Your task to perform on an android device: Empty the shopping cart on ebay. Search for logitech g pro on ebay, select the first entry, and add it to the cart. Image 0: 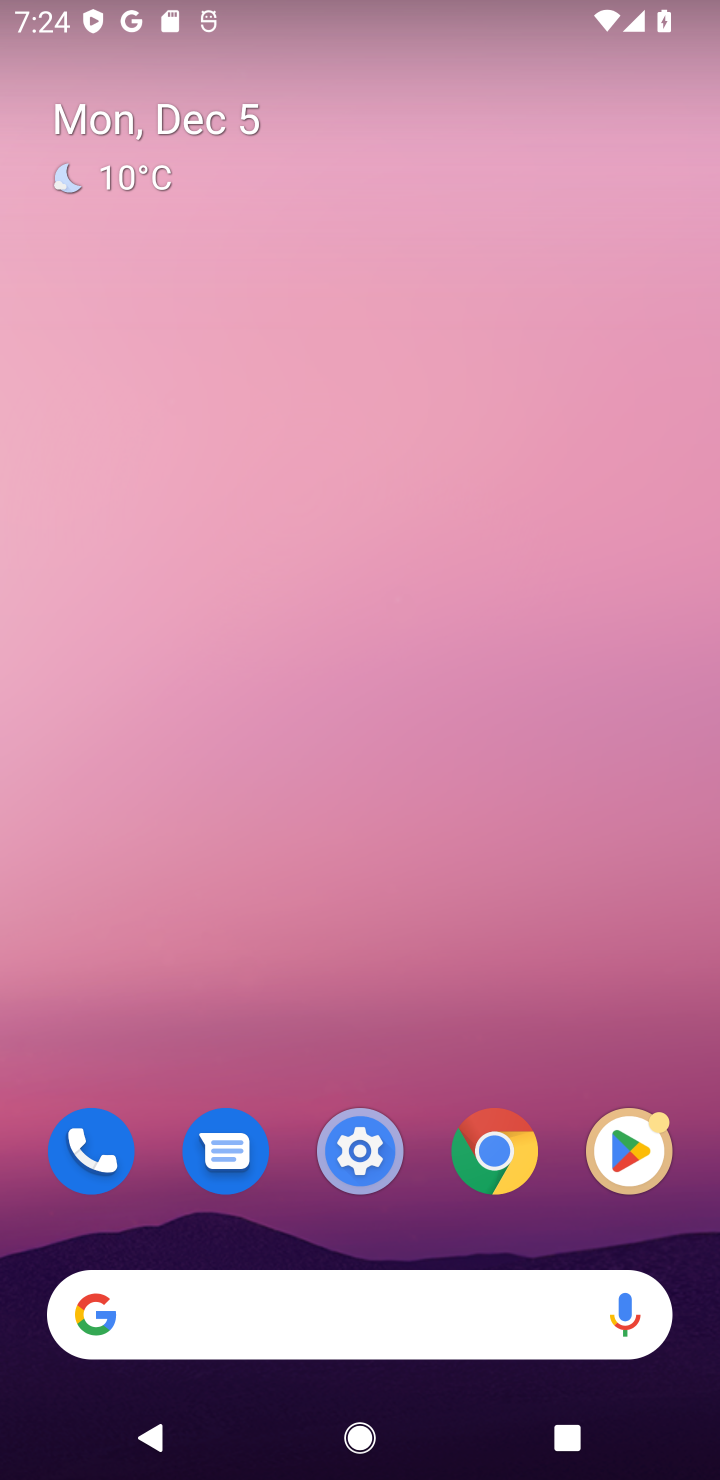
Step 0: click (416, 1328)
Your task to perform on an android device: Empty the shopping cart on ebay. Search for logitech g pro on ebay, select the first entry, and add it to the cart. Image 1: 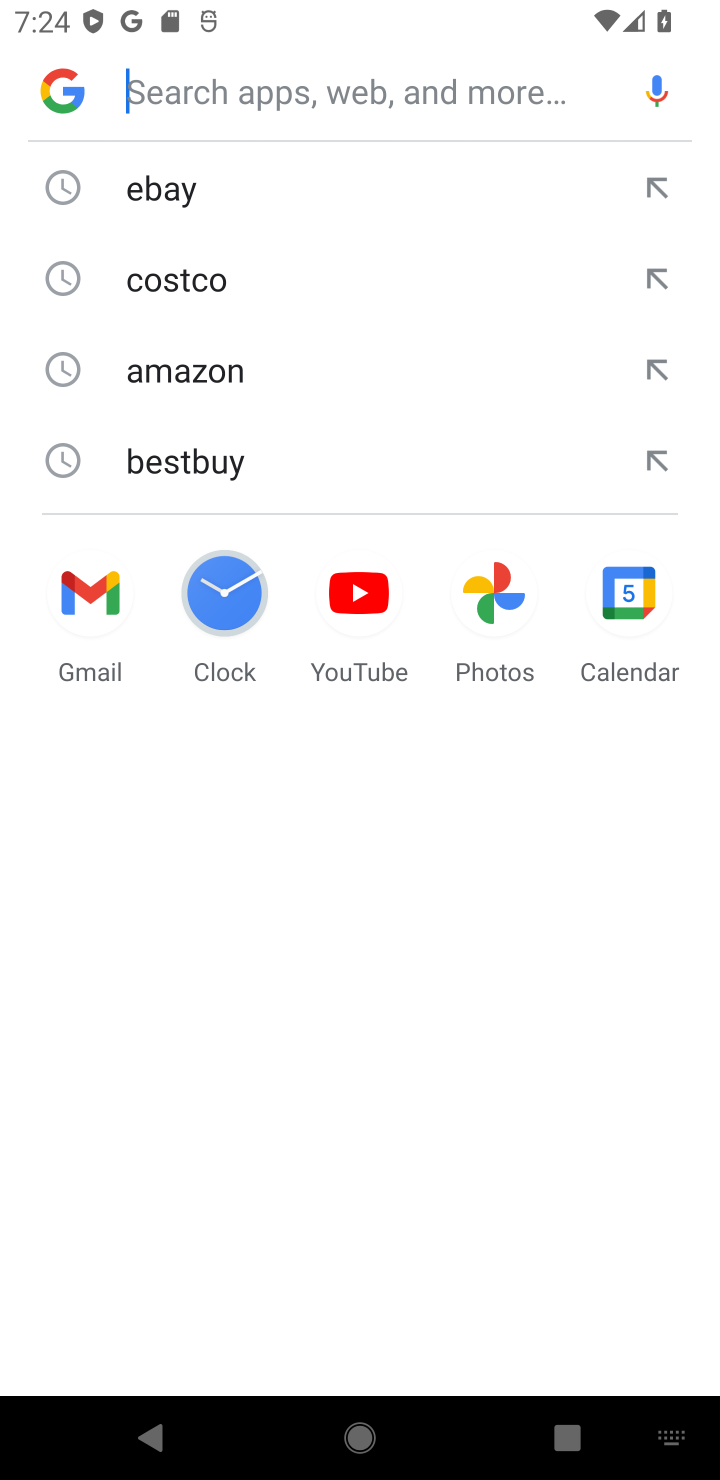
Step 1: click (140, 168)
Your task to perform on an android device: Empty the shopping cart on ebay. Search for logitech g pro on ebay, select the first entry, and add it to the cart. Image 2: 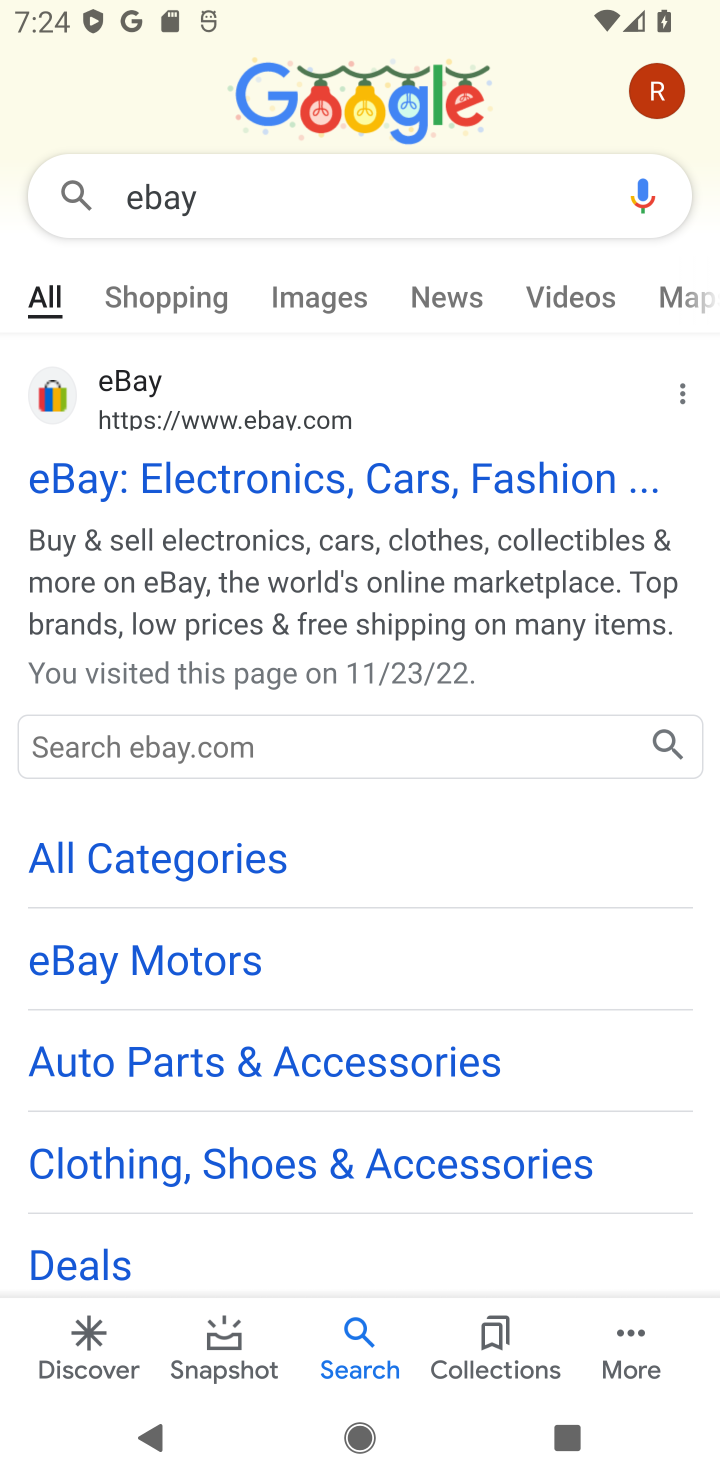
Step 2: click (289, 507)
Your task to perform on an android device: Empty the shopping cart on ebay. Search for logitech g pro on ebay, select the first entry, and add it to the cart. Image 3: 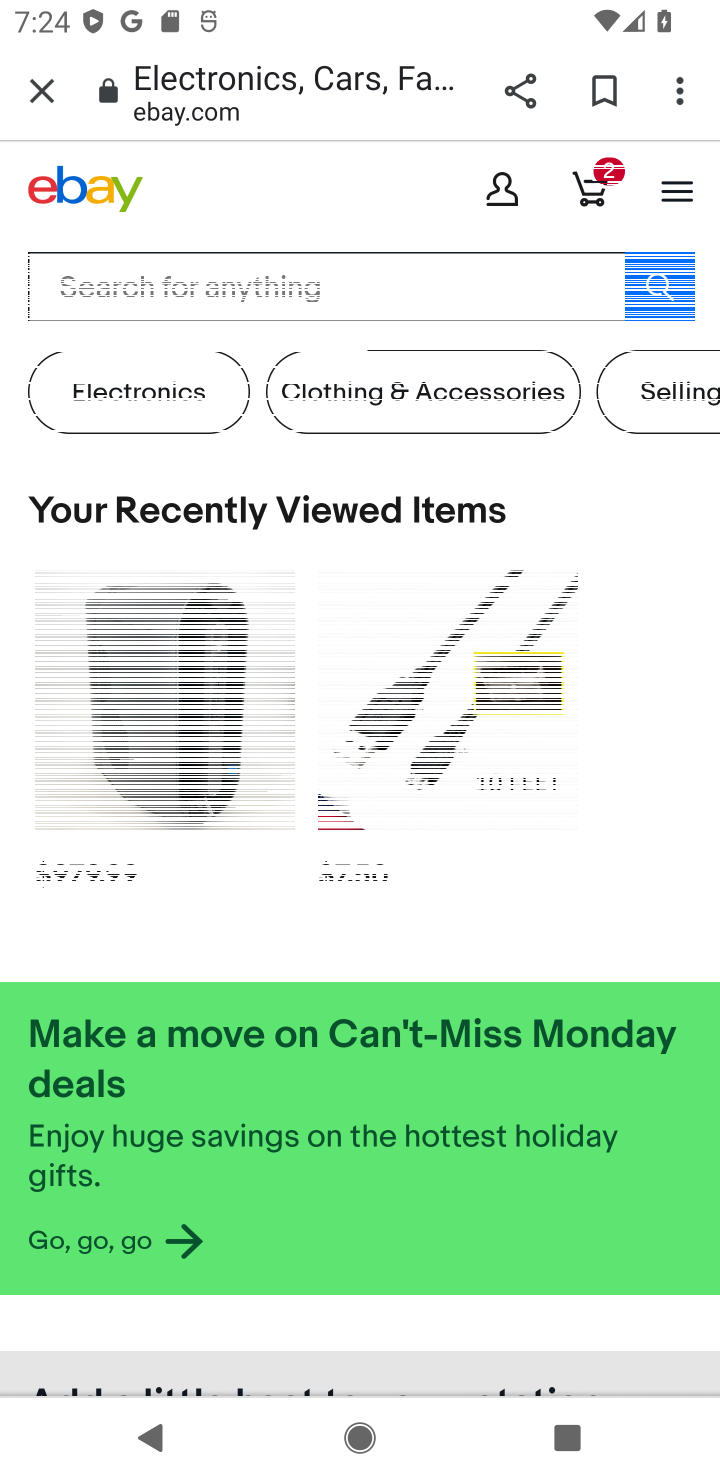
Step 3: click (322, 295)
Your task to perform on an android device: Empty the shopping cart on ebay. Search for logitech g pro on ebay, select the first entry, and add it to the cart. Image 4: 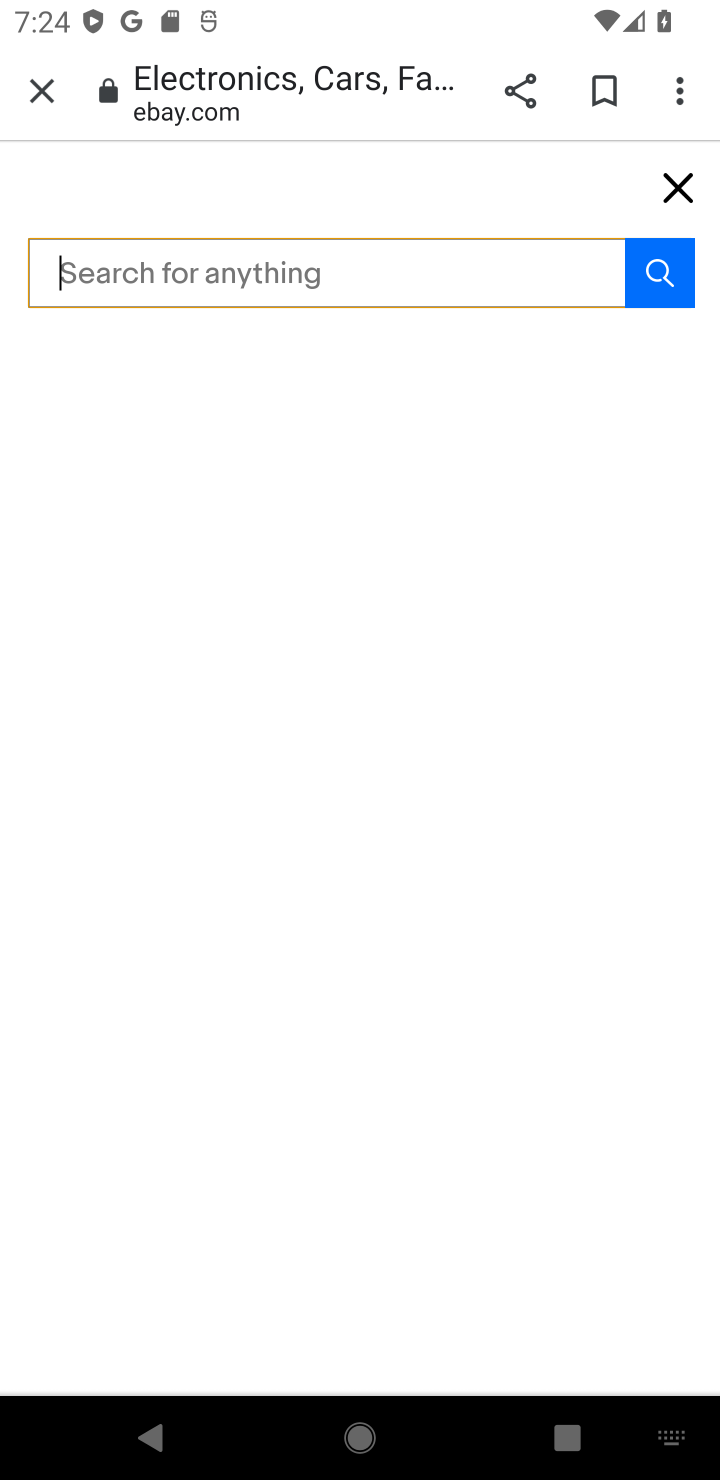
Step 4: type "logitech gpro "
Your task to perform on an android device: Empty the shopping cart on ebay. Search for logitech g pro on ebay, select the first entry, and add it to the cart. Image 5: 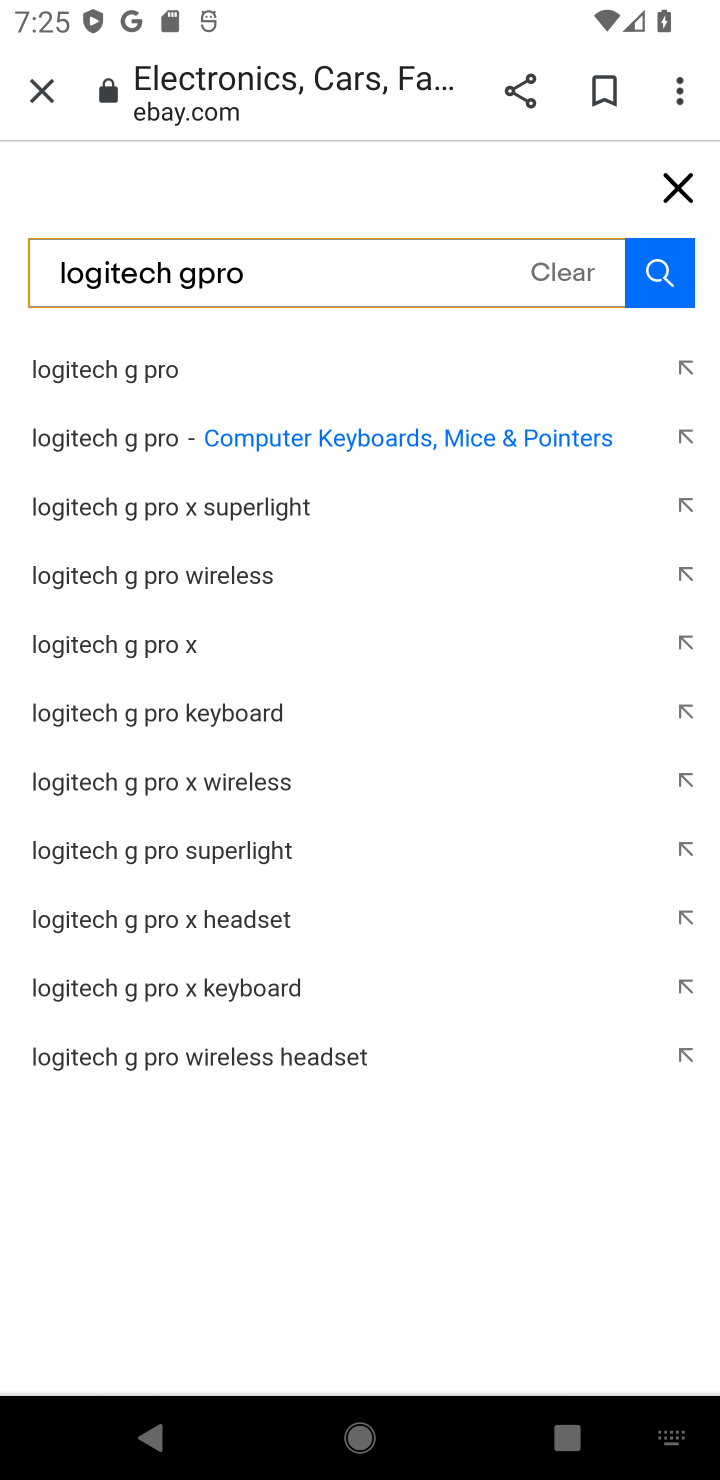
Step 5: click (150, 397)
Your task to perform on an android device: Empty the shopping cart on ebay. Search for logitech g pro on ebay, select the first entry, and add it to the cart. Image 6: 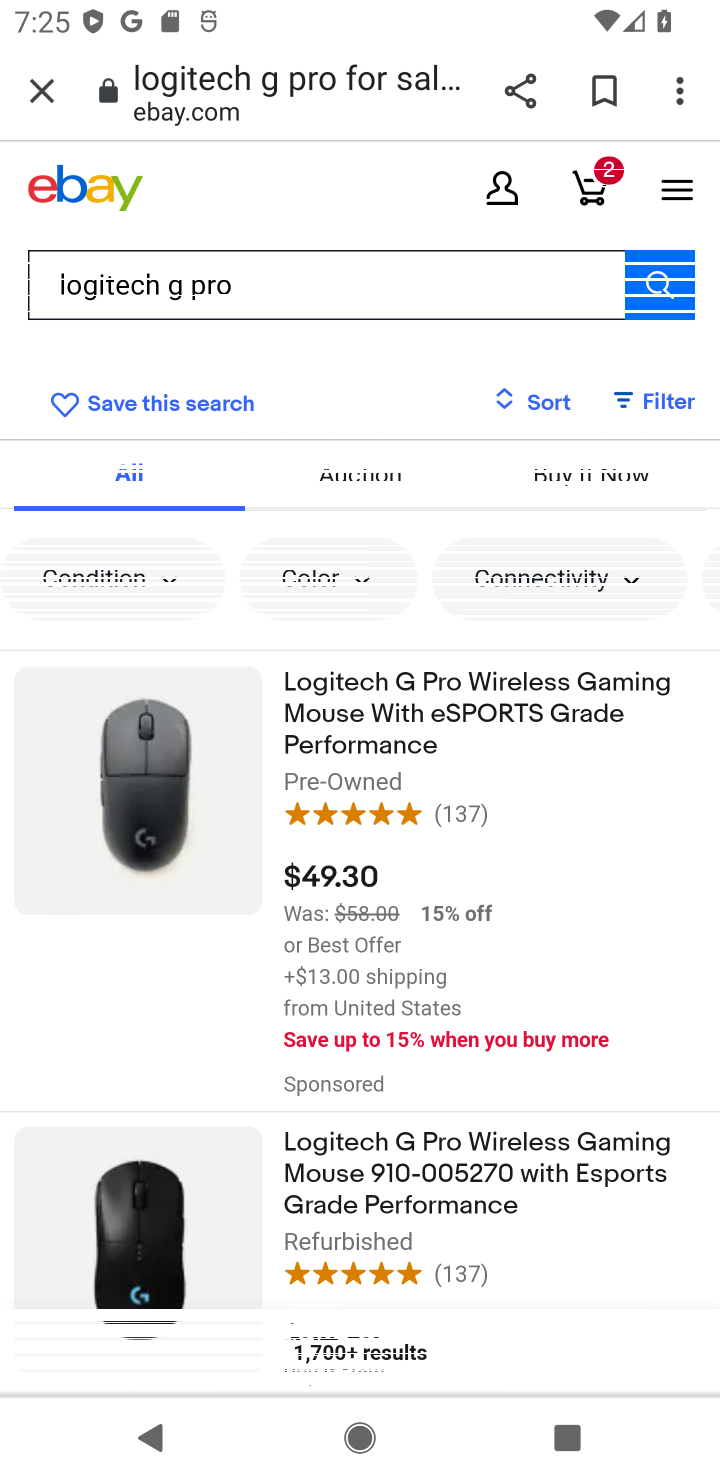
Step 6: click (410, 713)
Your task to perform on an android device: Empty the shopping cart on ebay. Search for logitech g pro on ebay, select the first entry, and add it to the cart. Image 7: 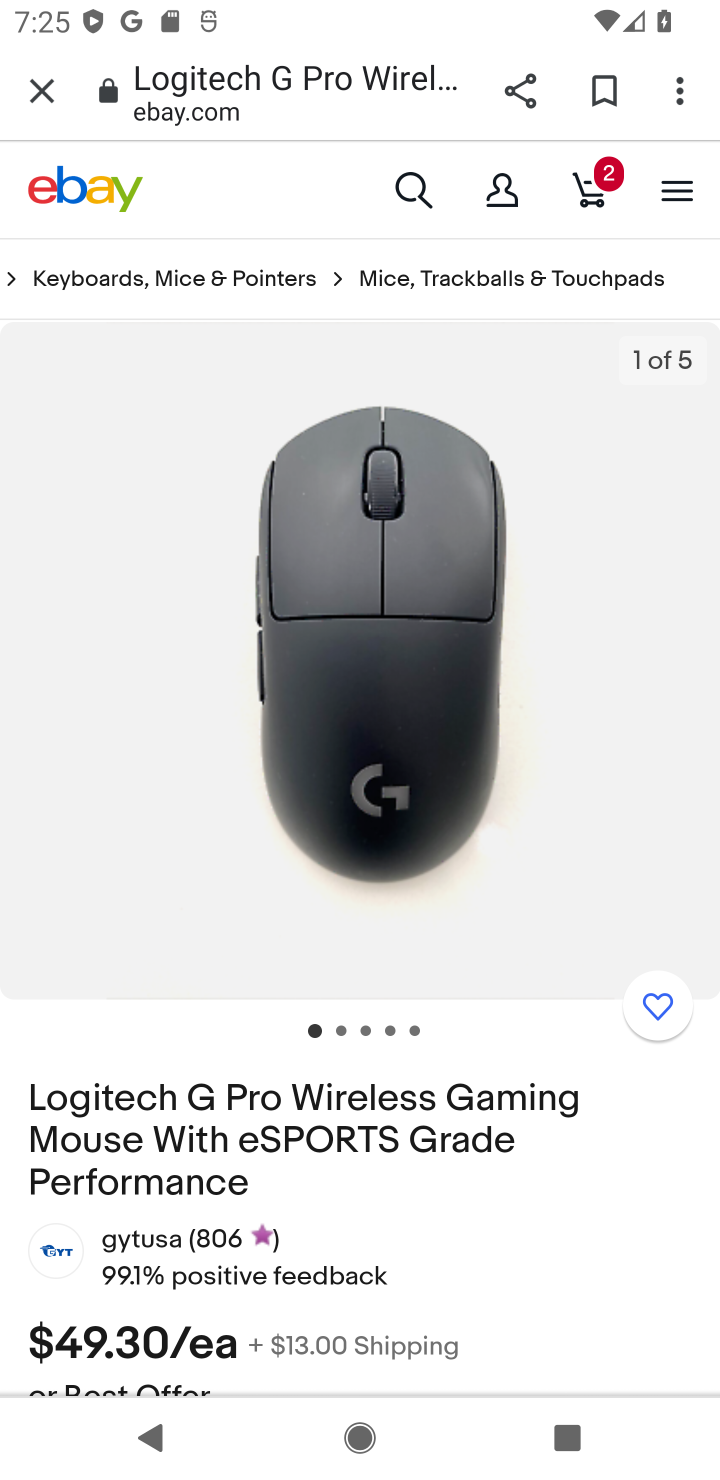
Step 7: drag from (448, 1221) to (400, 390)
Your task to perform on an android device: Empty the shopping cart on ebay. Search for logitech g pro on ebay, select the first entry, and add it to the cart. Image 8: 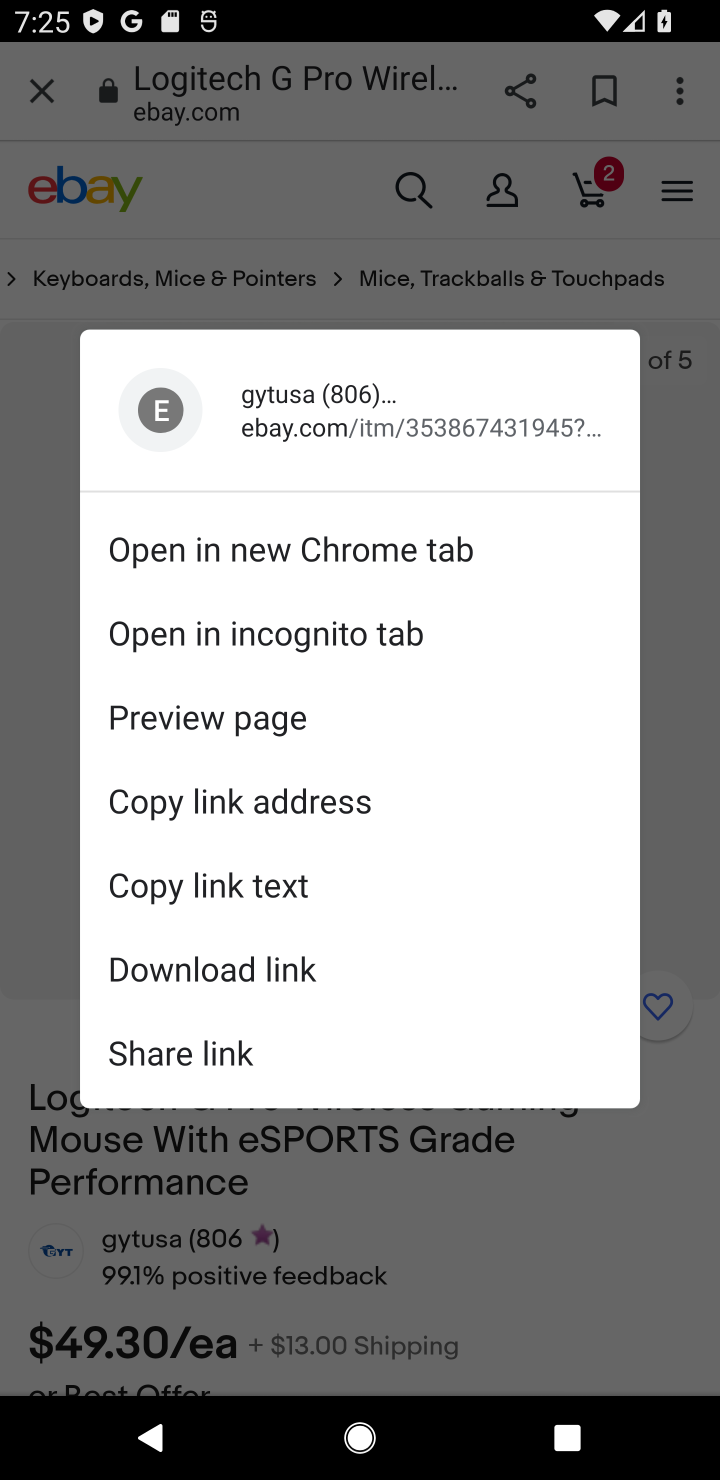
Step 8: click (532, 1158)
Your task to perform on an android device: Empty the shopping cart on ebay. Search for logitech g pro on ebay, select the first entry, and add it to the cart. Image 9: 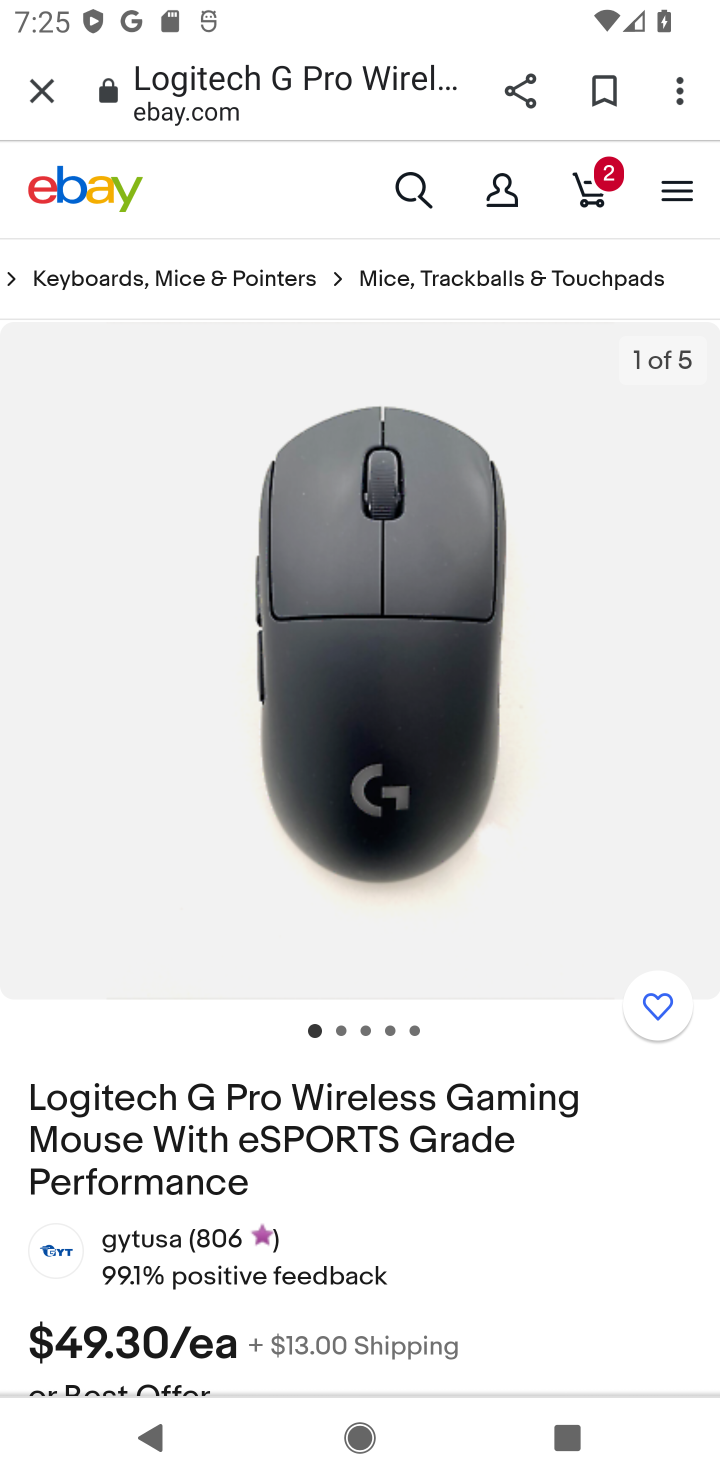
Step 9: drag from (498, 1262) to (420, 696)
Your task to perform on an android device: Empty the shopping cart on ebay. Search for logitech g pro on ebay, select the first entry, and add it to the cart. Image 10: 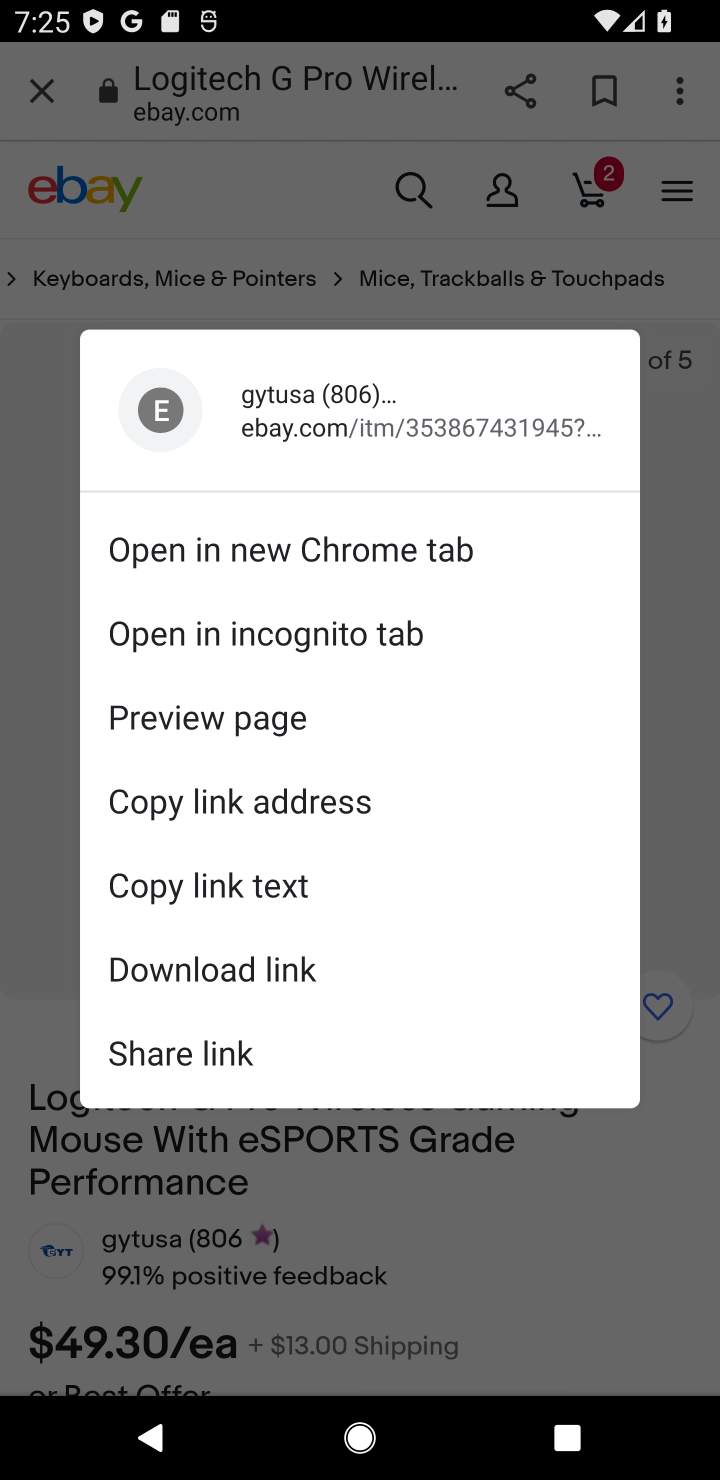
Step 10: drag from (478, 1215) to (503, 184)
Your task to perform on an android device: Empty the shopping cart on ebay. Search for logitech g pro on ebay, select the first entry, and add it to the cart. Image 11: 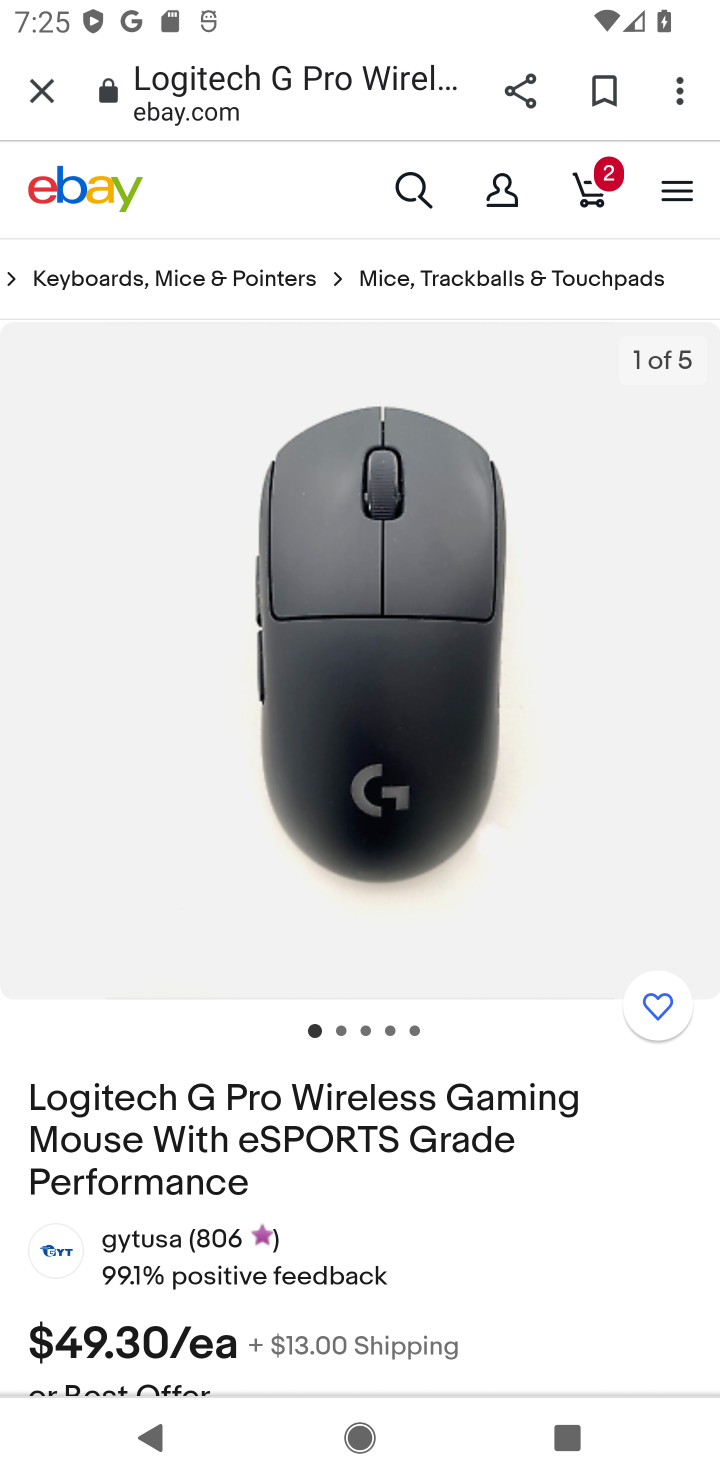
Step 11: drag from (457, 1097) to (358, 311)
Your task to perform on an android device: Empty the shopping cart on ebay. Search for logitech g pro on ebay, select the first entry, and add it to the cart. Image 12: 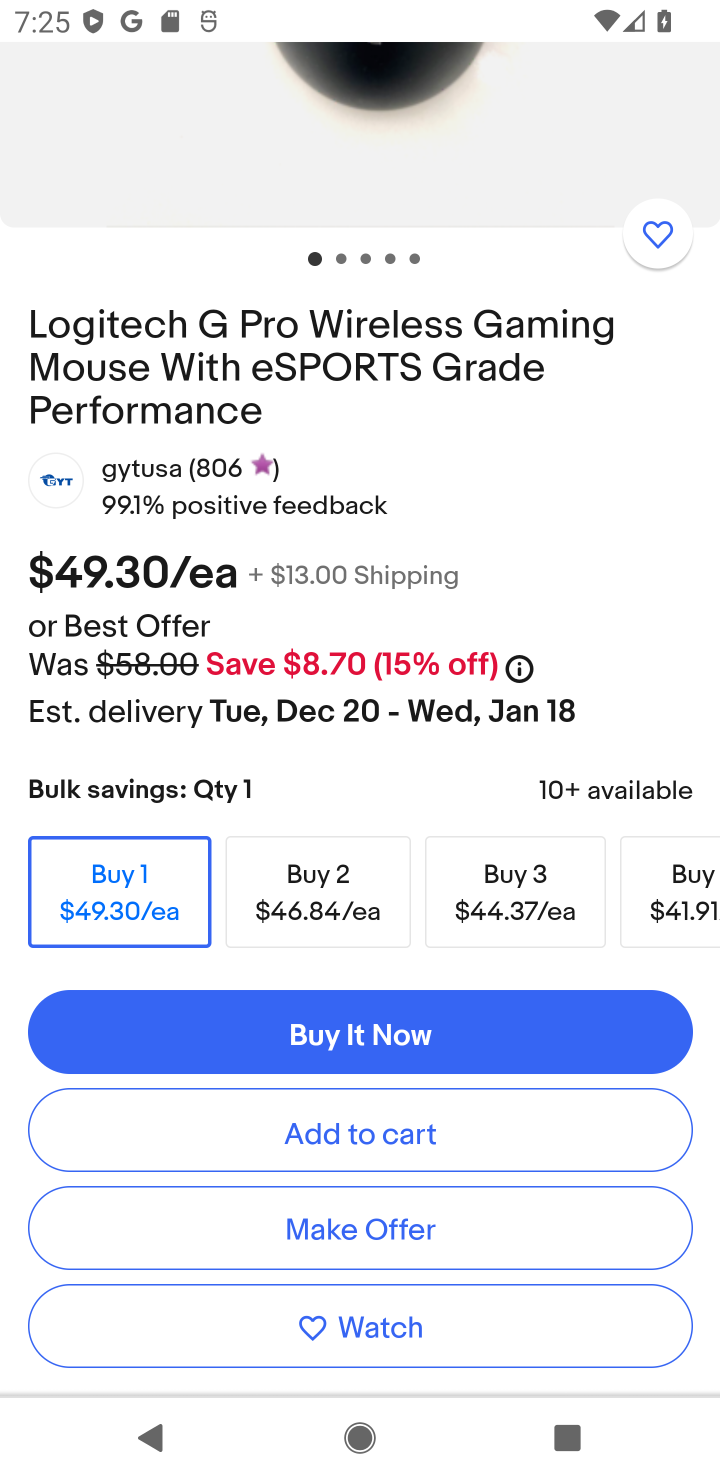
Step 12: click (372, 1129)
Your task to perform on an android device: Empty the shopping cart on ebay. Search for logitech g pro on ebay, select the first entry, and add it to the cart. Image 13: 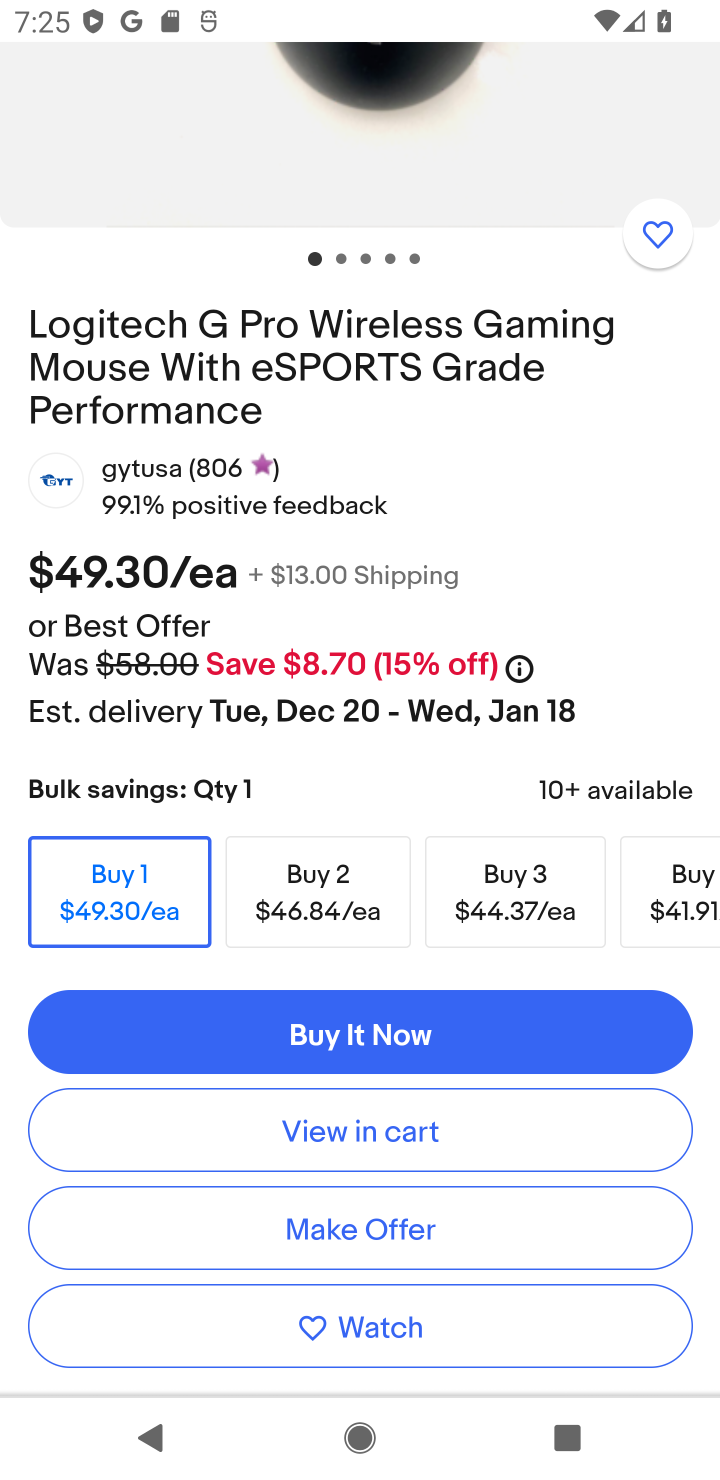
Step 13: task complete